Your task to perform on an android device: Go to network settings Image 0: 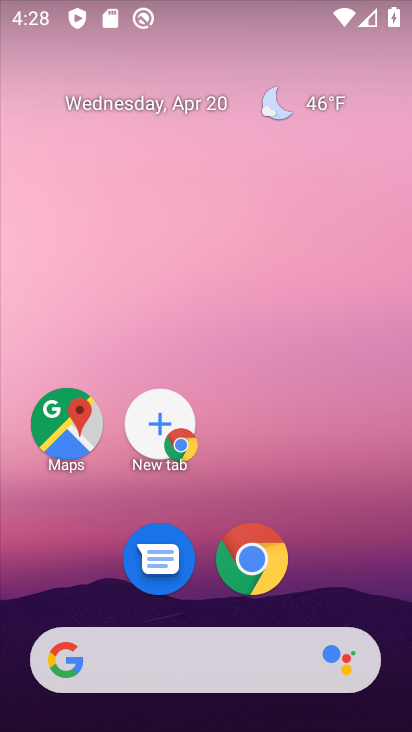
Step 0: drag from (359, 570) to (267, 166)
Your task to perform on an android device: Go to network settings Image 1: 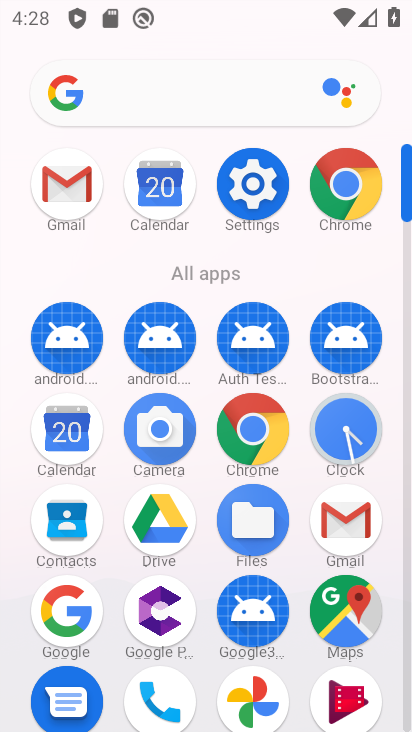
Step 1: click (253, 202)
Your task to perform on an android device: Go to network settings Image 2: 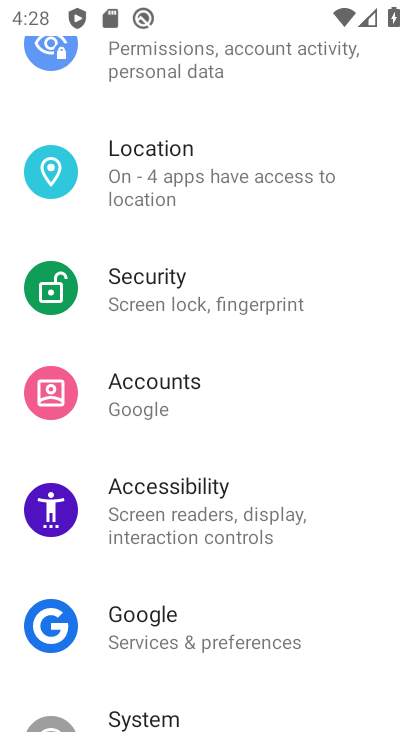
Step 2: drag from (247, 360) to (349, 728)
Your task to perform on an android device: Go to network settings Image 3: 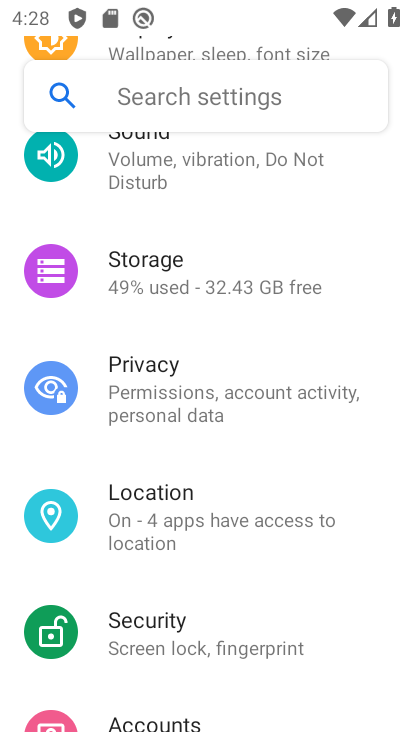
Step 3: drag from (256, 228) to (345, 716)
Your task to perform on an android device: Go to network settings Image 4: 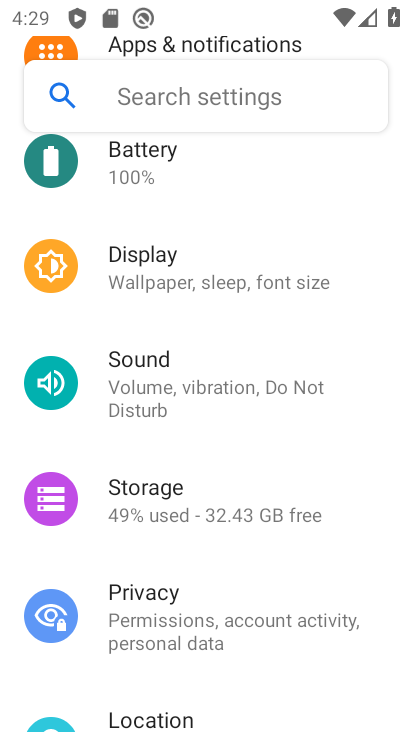
Step 4: drag from (247, 206) to (332, 611)
Your task to perform on an android device: Go to network settings Image 5: 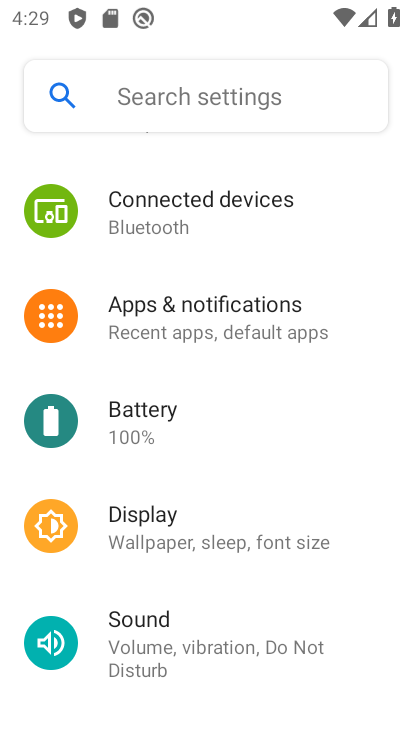
Step 5: drag from (261, 251) to (311, 642)
Your task to perform on an android device: Go to network settings Image 6: 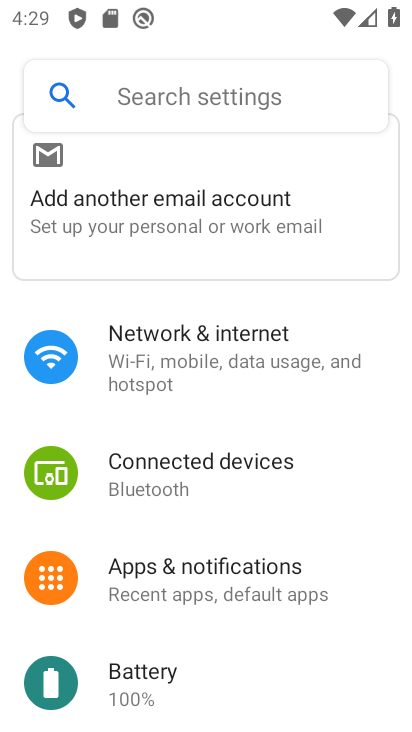
Step 6: click (228, 357)
Your task to perform on an android device: Go to network settings Image 7: 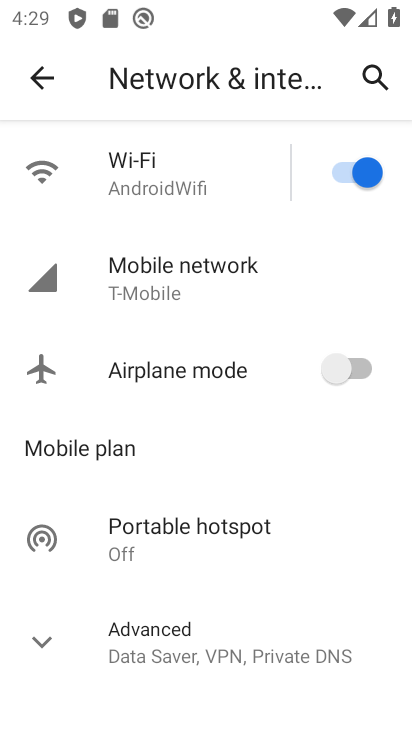
Step 7: click (245, 296)
Your task to perform on an android device: Go to network settings Image 8: 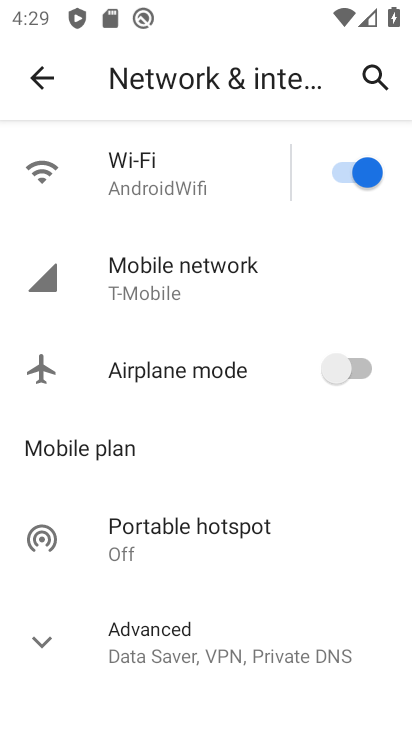
Step 8: task complete